Your task to perform on an android device: Play the last video I watched on Youtube Image 0: 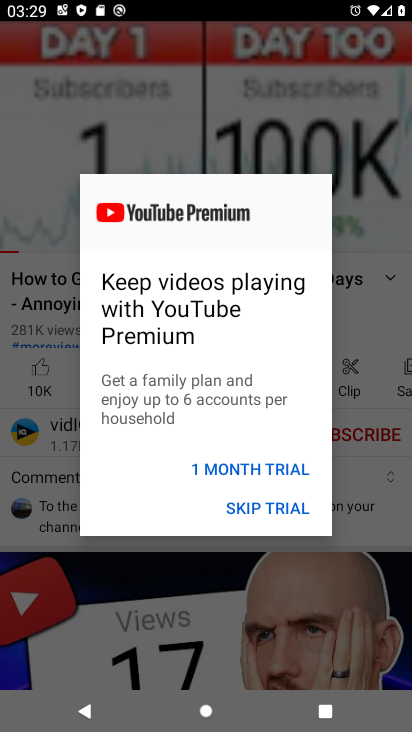
Step 0: press home button
Your task to perform on an android device: Play the last video I watched on Youtube Image 1: 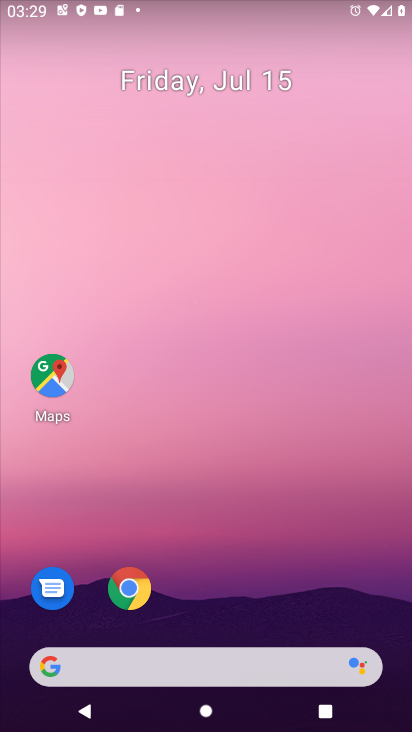
Step 1: drag from (191, 666) to (185, 325)
Your task to perform on an android device: Play the last video I watched on Youtube Image 2: 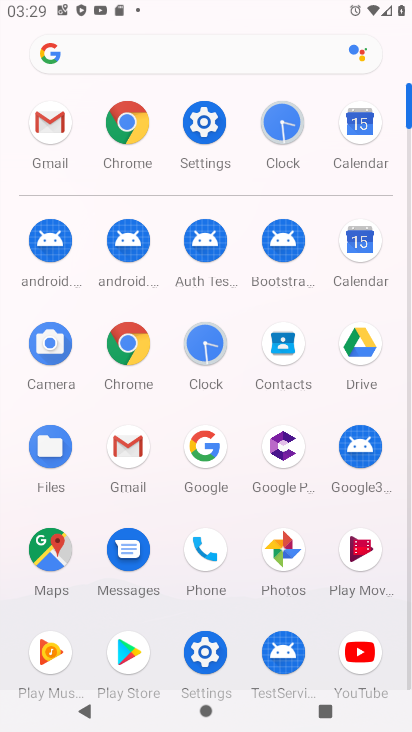
Step 2: click (361, 654)
Your task to perform on an android device: Play the last video I watched on Youtube Image 3: 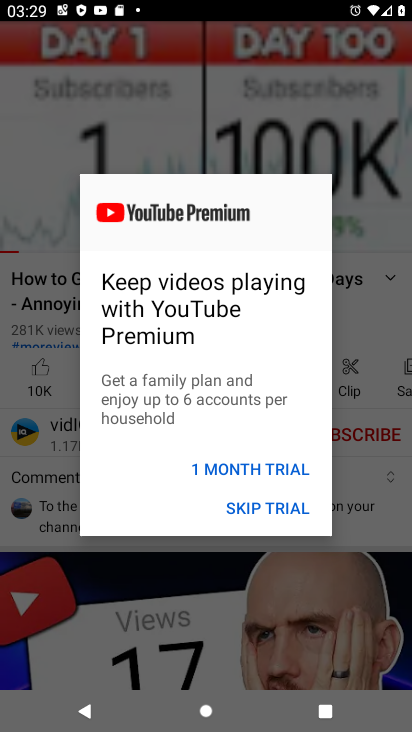
Step 3: click (261, 508)
Your task to perform on an android device: Play the last video I watched on Youtube Image 4: 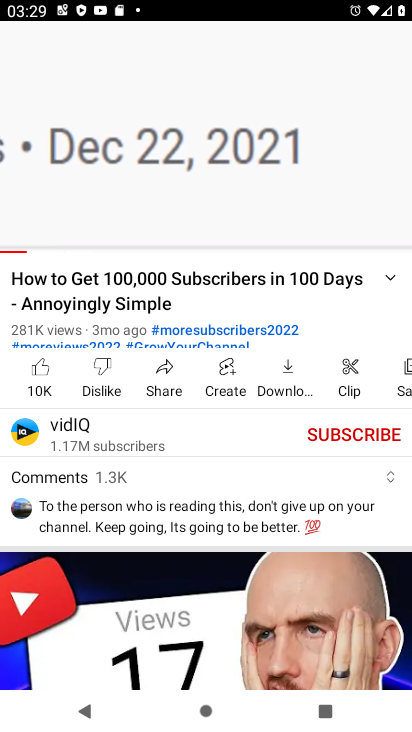
Step 4: click (214, 136)
Your task to perform on an android device: Play the last video I watched on Youtube Image 5: 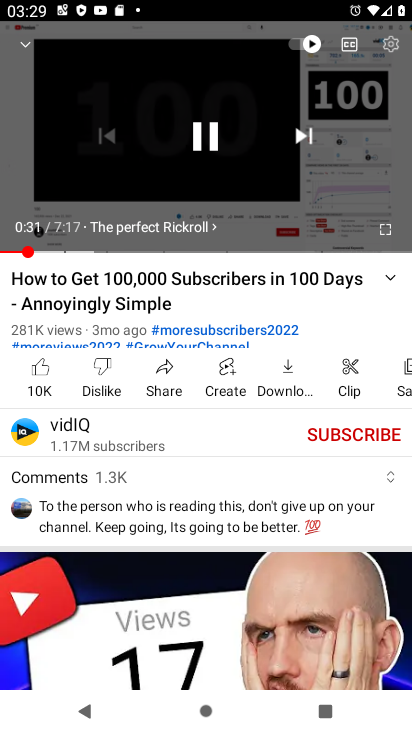
Step 5: click (214, 135)
Your task to perform on an android device: Play the last video I watched on Youtube Image 6: 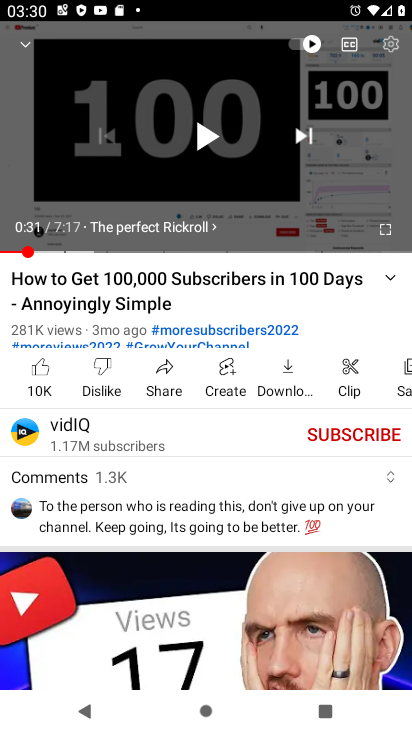
Step 6: task complete